Your task to perform on an android device: Go to Reddit.com Image 0: 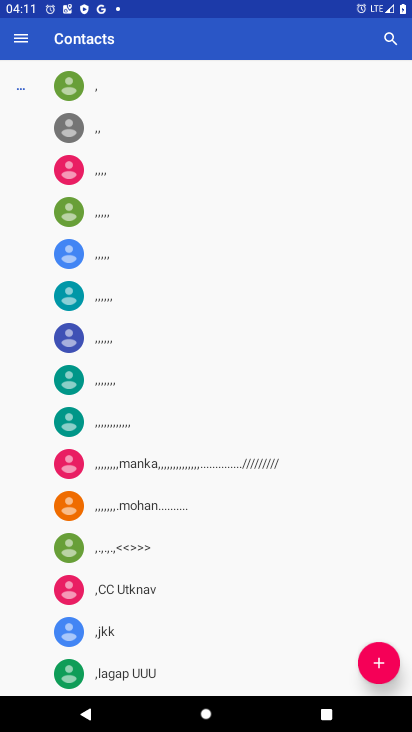
Step 0: press home button
Your task to perform on an android device: Go to Reddit.com Image 1: 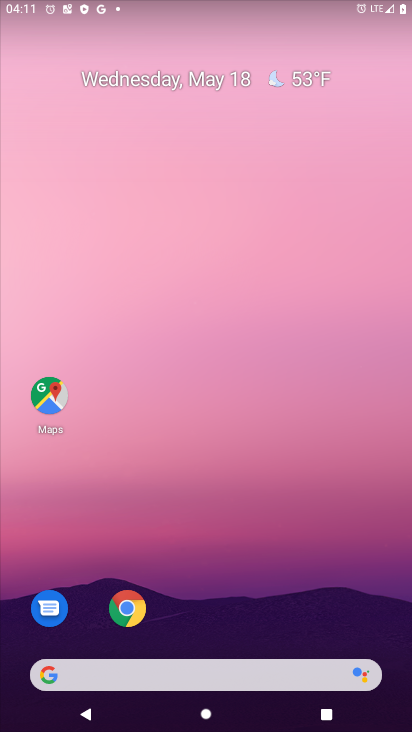
Step 1: click (135, 610)
Your task to perform on an android device: Go to Reddit.com Image 2: 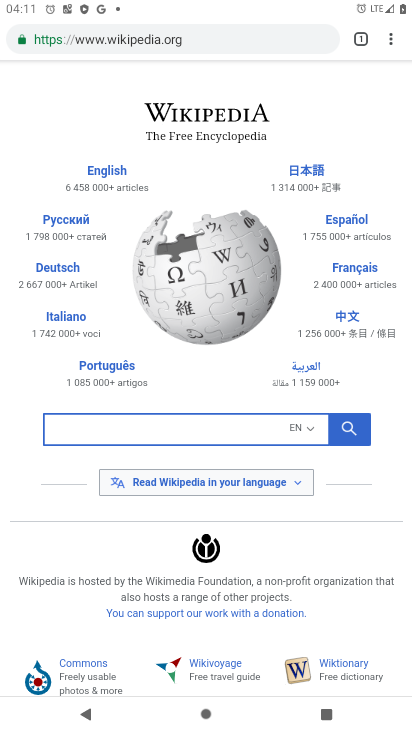
Step 2: click (124, 35)
Your task to perform on an android device: Go to Reddit.com Image 3: 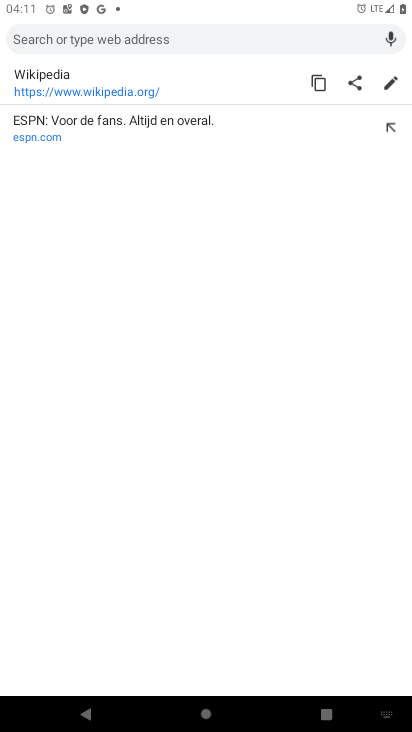
Step 3: type "reddit.com"
Your task to perform on an android device: Go to Reddit.com Image 4: 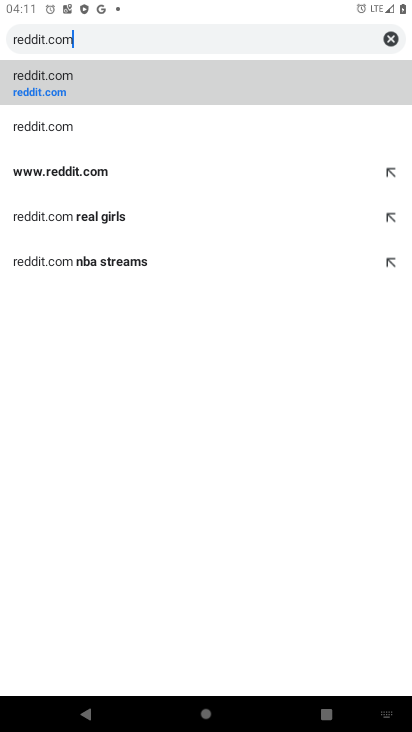
Step 4: click (29, 95)
Your task to perform on an android device: Go to Reddit.com Image 5: 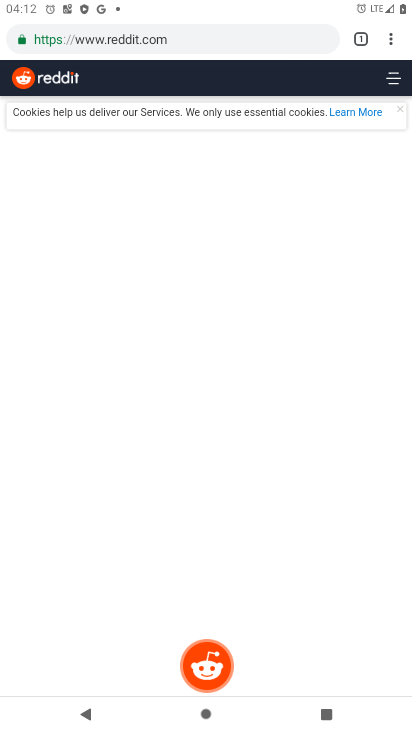
Step 5: task complete